Your task to perform on an android device: What's on my calendar today? Image 0: 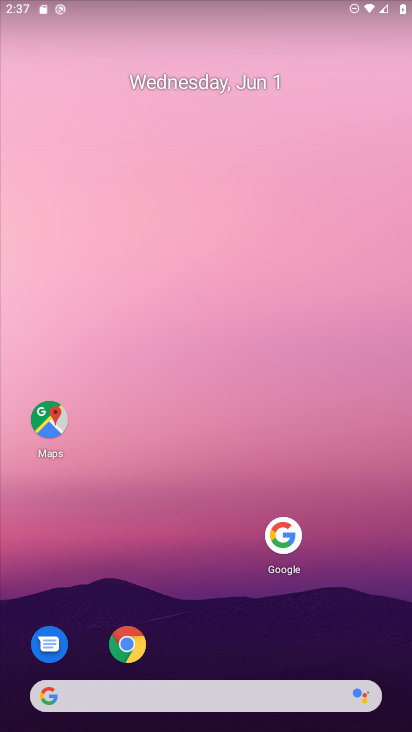
Step 0: press home button
Your task to perform on an android device: What's on my calendar today? Image 1: 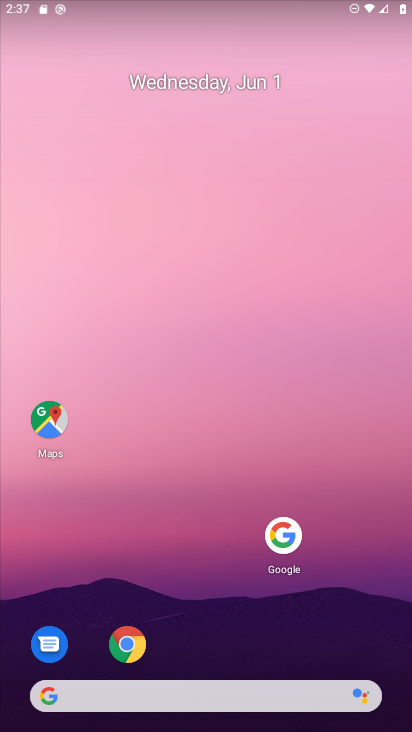
Step 1: drag from (230, 688) to (316, 15)
Your task to perform on an android device: What's on my calendar today? Image 2: 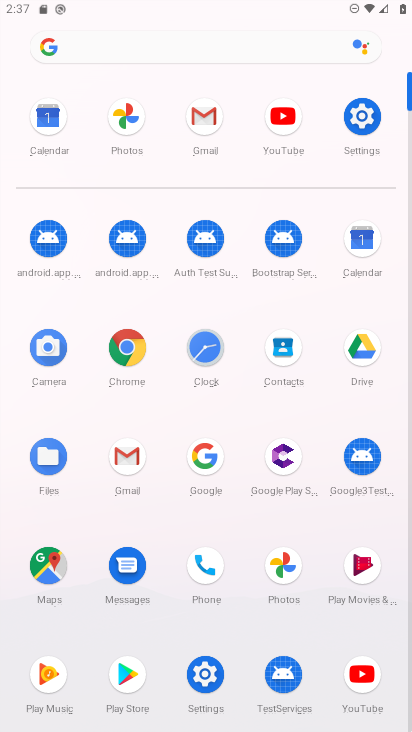
Step 2: click (365, 250)
Your task to perform on an android device: What's on my calendar today? Image 3: 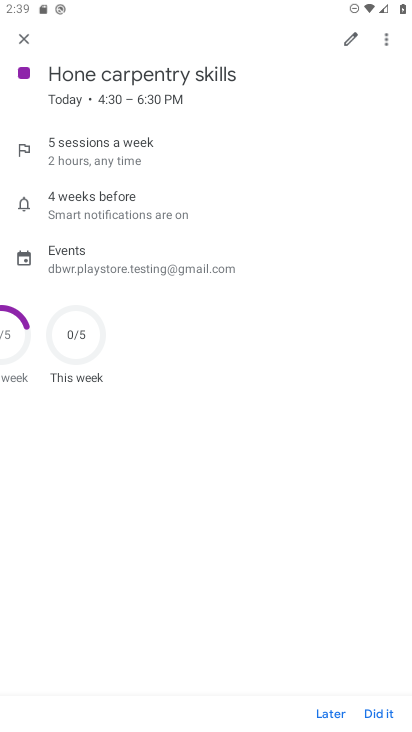
Step 3: task complete